Your task to perform on an android device: open a new tab in the chrome app Image 0: 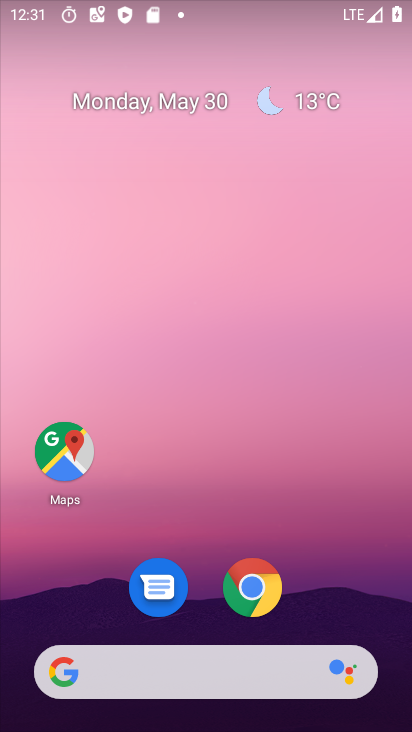
Step 0: click (252, 591)
Your task to perform on an android device: open a new tab in the chrome app Image 1: 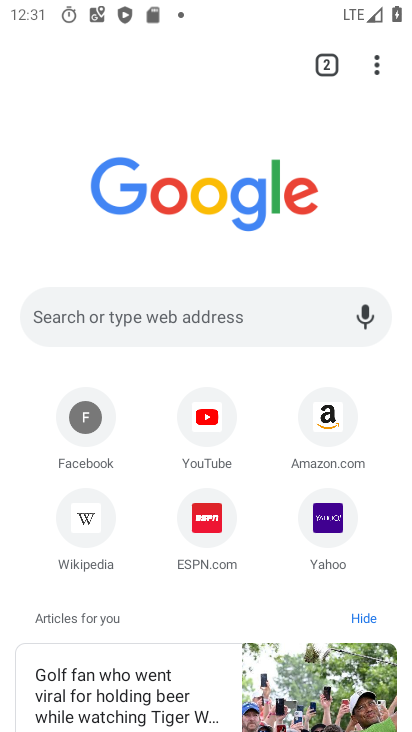
Step 1: task complete